Your task to perform on an android device: turn off translation in the chrome app Image 0: 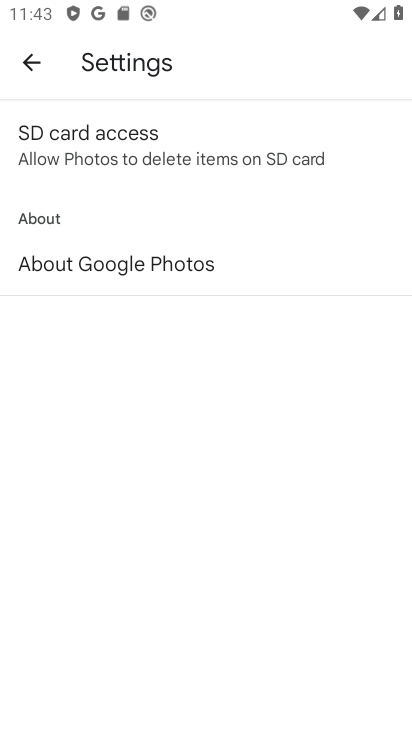
Step 0: click (36, 64)
Your task to perform on an android device: turn off translation in the chrome app Image 1: 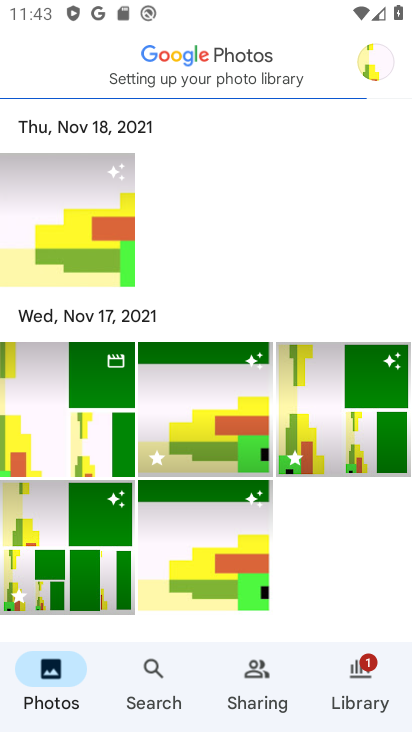
Step 1: press back button
Your task to perform on an android device: turn off translation in the chrome app Image 2: 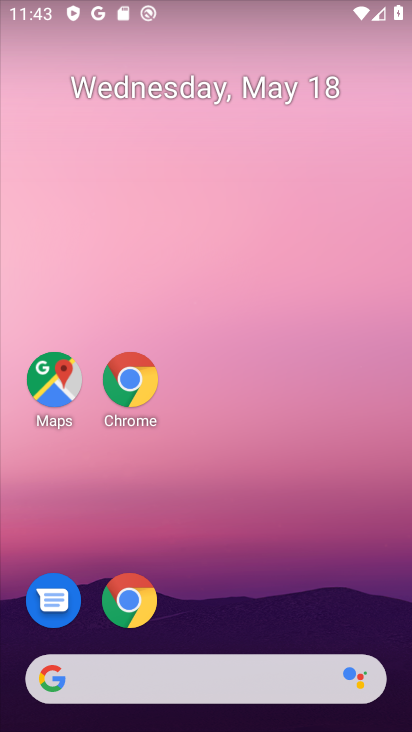
Step 2: drag from (266, 636) to (170, 188)
Your task to perform on an android device: turn off translation in the chrome app Image 3: 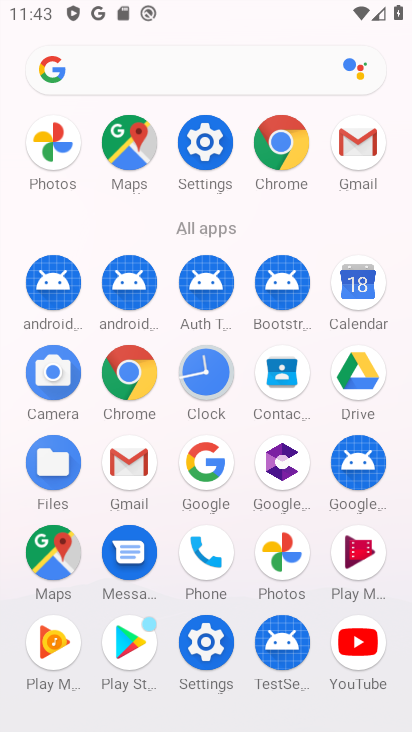
Step 3: click (279, 145)
Your task to perform on an android device: turn off translation in the chrome app Image 4: 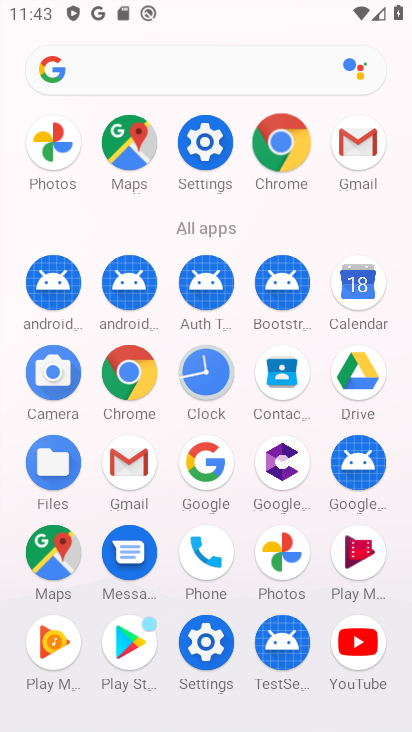
Step 4: click (279, 145)
Your task to perform on an android device: turn off translation in the chrome app Image 5: 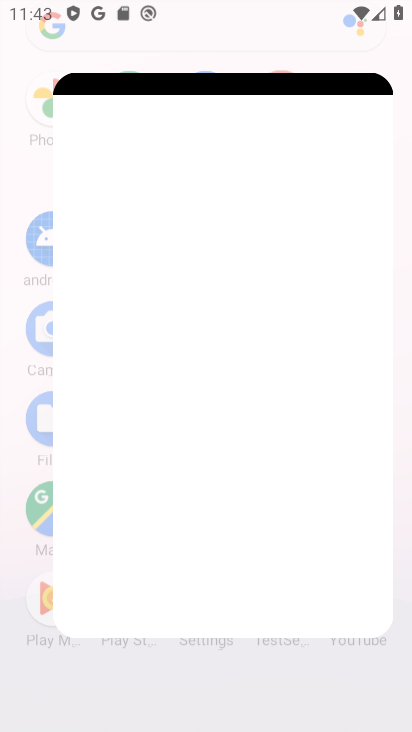
Step 5: click (279, 145)
Your task to perform on an android device: turn off translation in the chrome app Image 6: 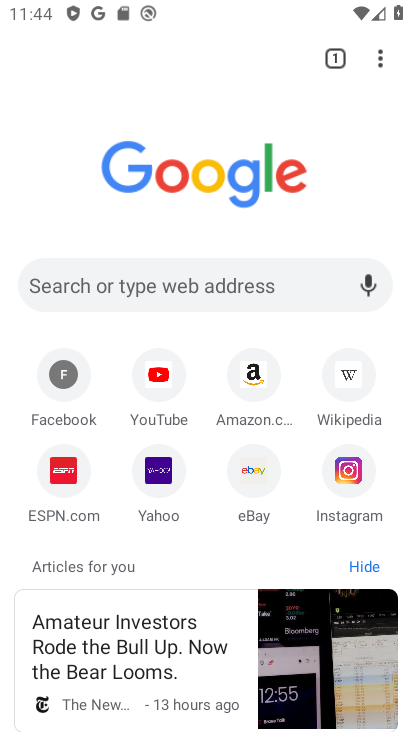
Step 6: drag from (376, 52) to (164, 493)
Your task to perform on an android device: turn off translation in the chrome app Image 7: 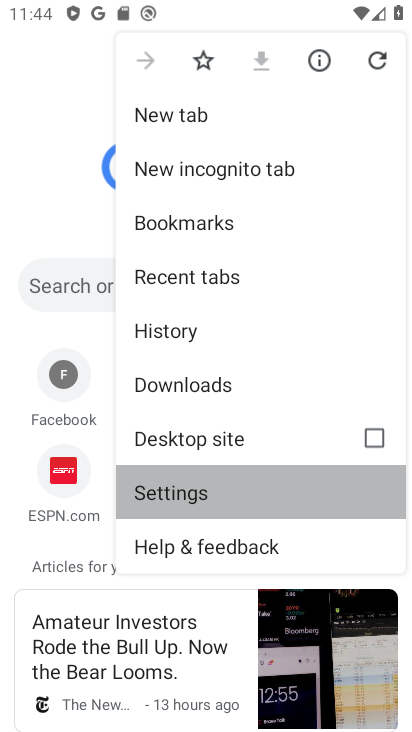
Step 7: click (164, 493)
Your task to perform on an android device: turn off translation in the chrome app Image 8: 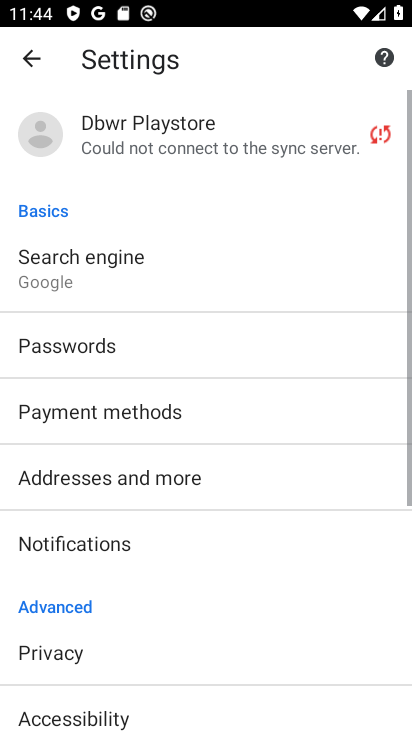
Step 8: drag from (128, 537) to (148, 95)
Your task to perform on an android device: turn off translation in the chrome app Image 9: 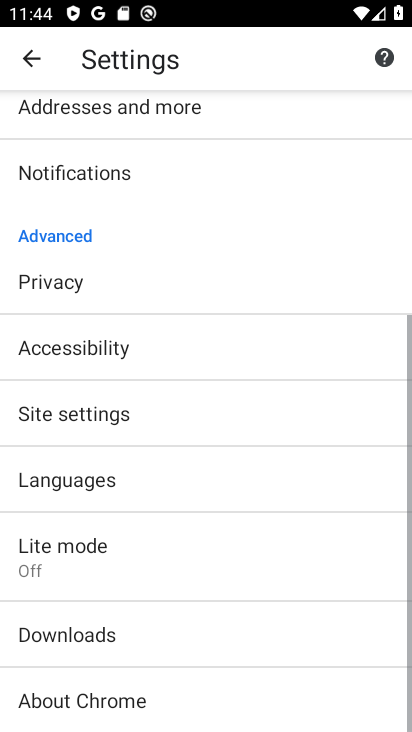
Step 9: drag from (202, 406) to (139, 207)
Your task to perform on an android device: turn off translation in the chrome app Image 10: 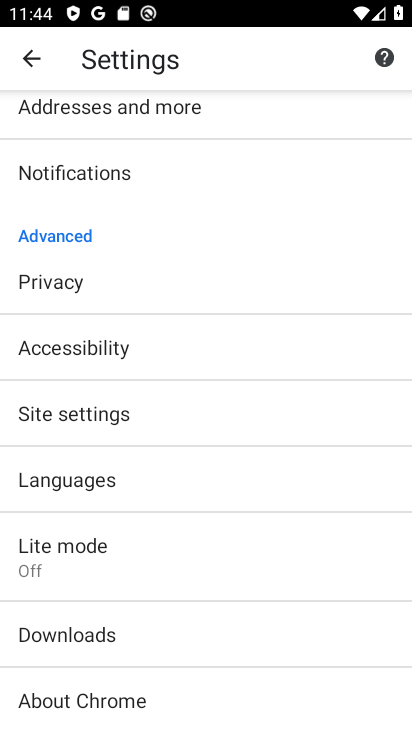
Step 10: click (64, 480)
Your task to perform on an android device: turn off translation in the chrome app Image 11: 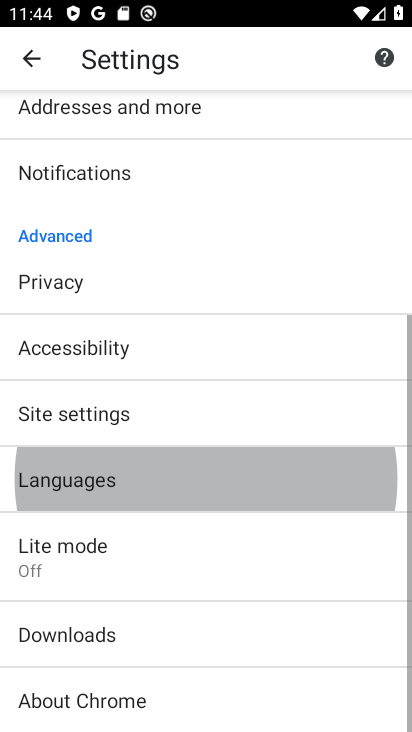
Step 11: click (65, 479)
Your task to perform on an android device: turn off translation in the chrome app Image 12: 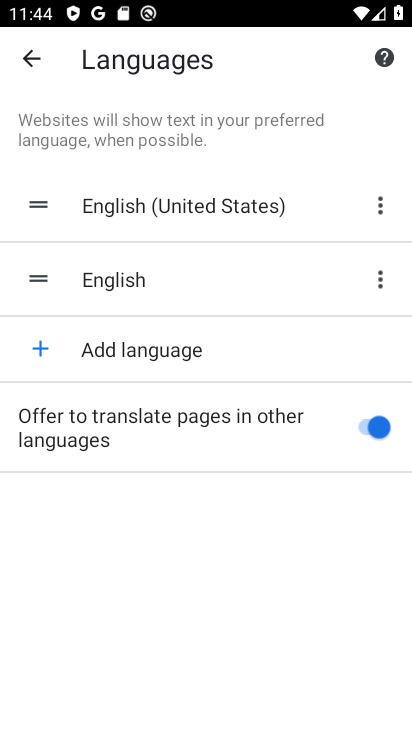
Step 12: click (365, 425)
Your task to perform on an android device: turn off translation in the chrome app Image 13: 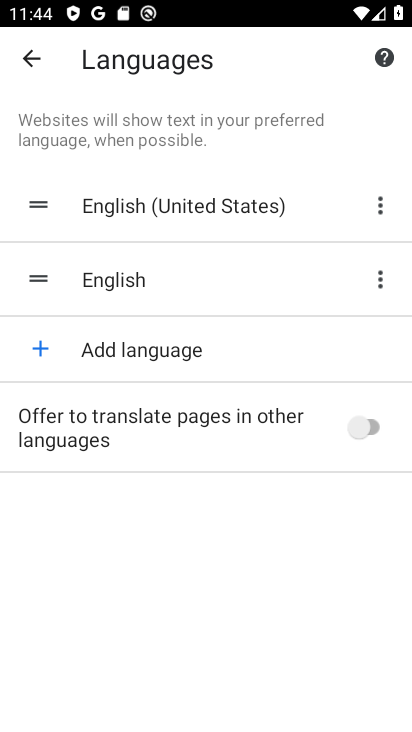
Step 13: click (363, 427)
Your task to perform on an android device: turn off translation in the chrome app Image 14: 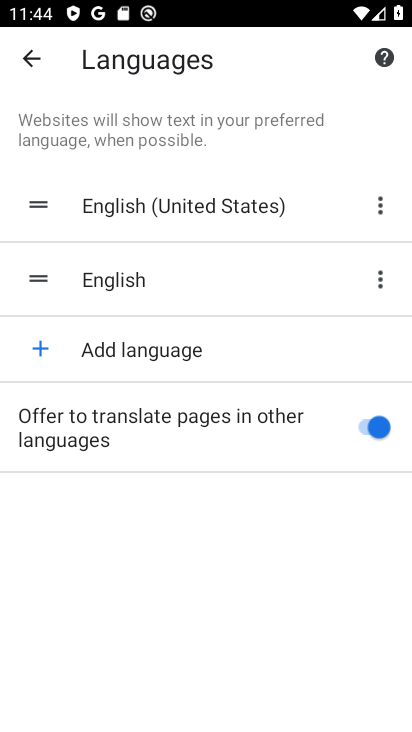
Step 14: click (365, 425)
Your task to perform on an android device: turn off translation in the chrome app Image 15: 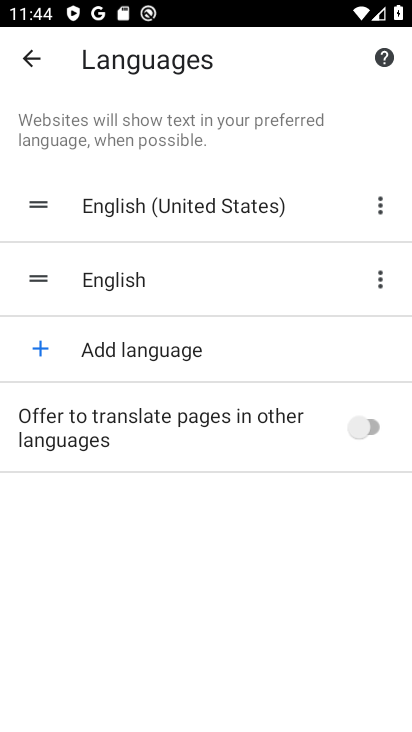
Step 15: task complete